Your task to perform on an android device: show emergency info Image 0: 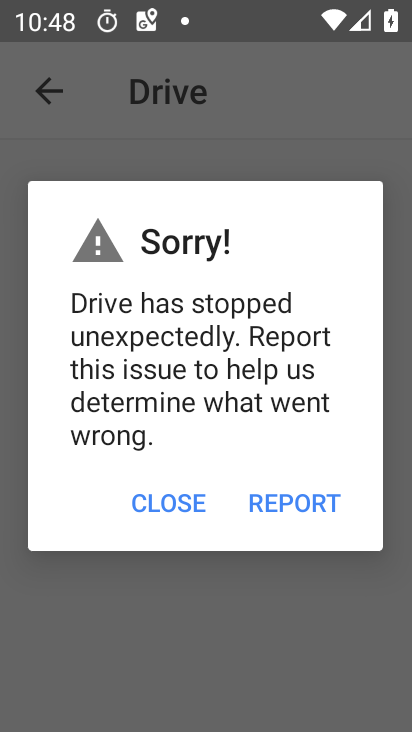
Step 0: press home button
Your task to perform on an android device: show emergency info Image 1: 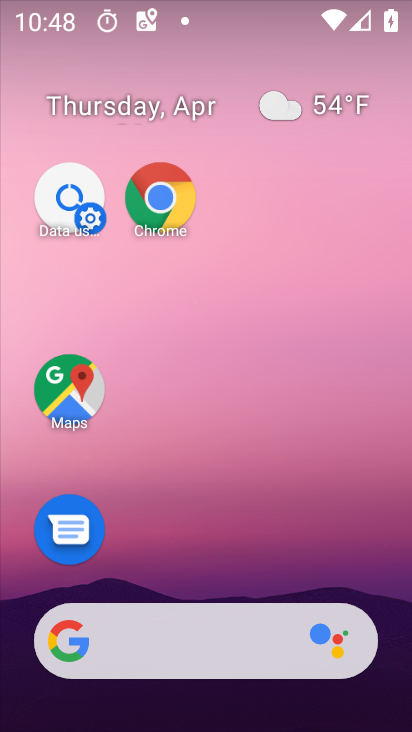
Step 1: drag from (207, 591) to (266, 53)
Your task to perform on an android device: show emergency info Image 2: 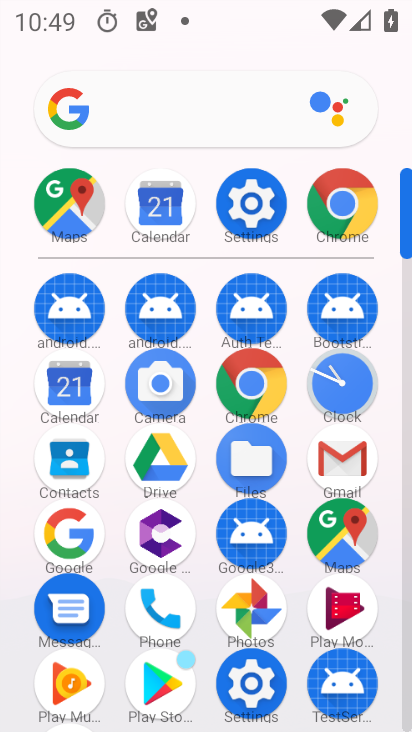
Step 2: click (225, 682)
Your task to perform on an android device: show emergency info Image 3: 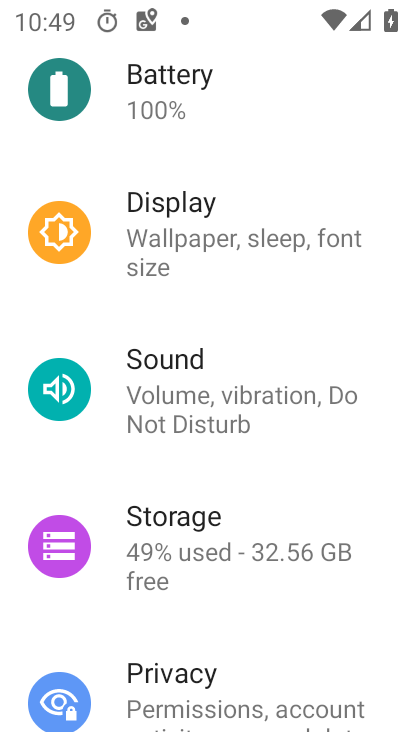
Step 3: drag from (311, 627) to (375, 17)
Your task to perform on an android device: show emergency info Image 4: 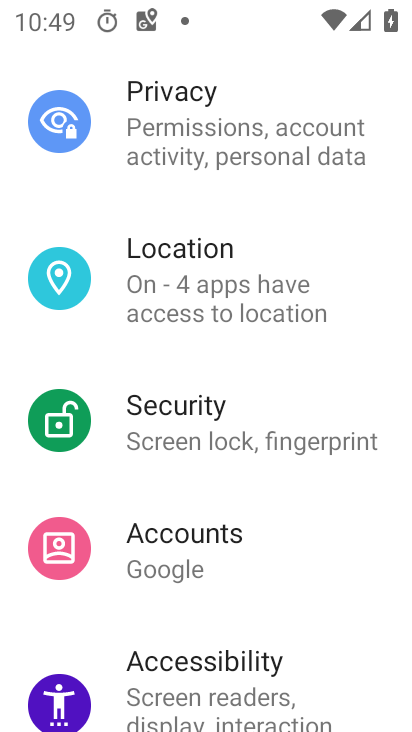
Step 4: drag from (231, 606) to (167, 14)
Your task to perform on an android device: show emergency info Image 5: 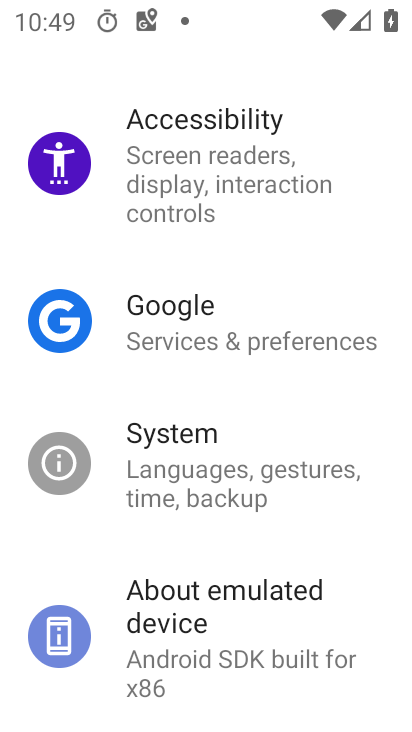
Step 5: drag from (202, 726) to (192, 584)
Your task to perform on an android device: show emergency info Image 6: 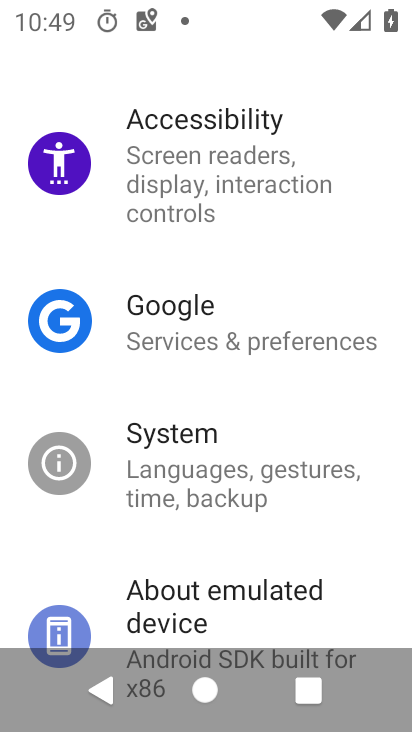
Step 6: click (189, 617)
Your task to perform on an android device: show emergency info Image 7: 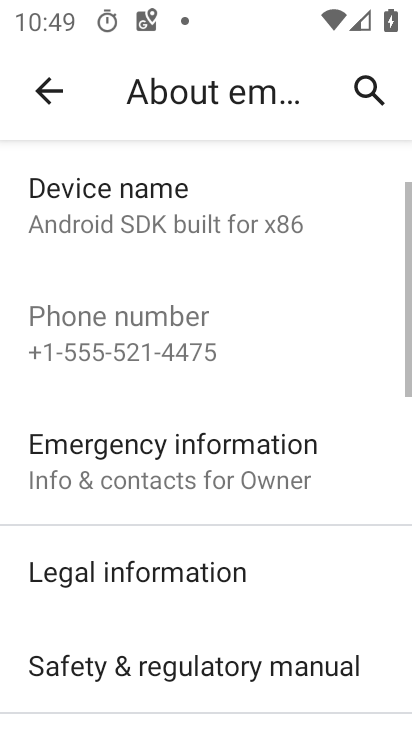
Step 7: click (159, 499)
Your task to perform on an android device: show emergency info Image 8: 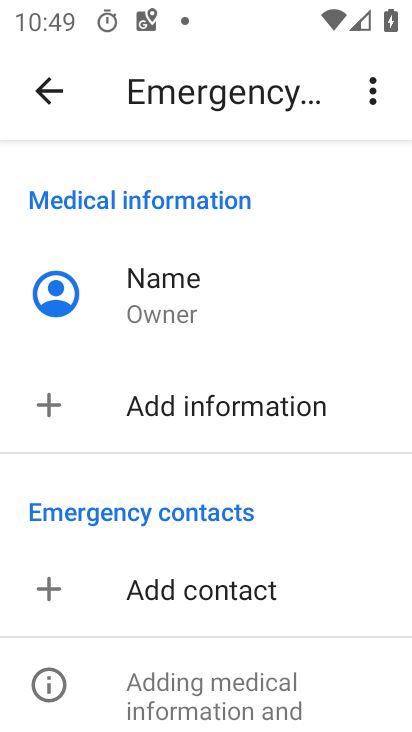
Step 8: task complete